Your task to perform on an android device: turn on translation in the chrome app Image 0: 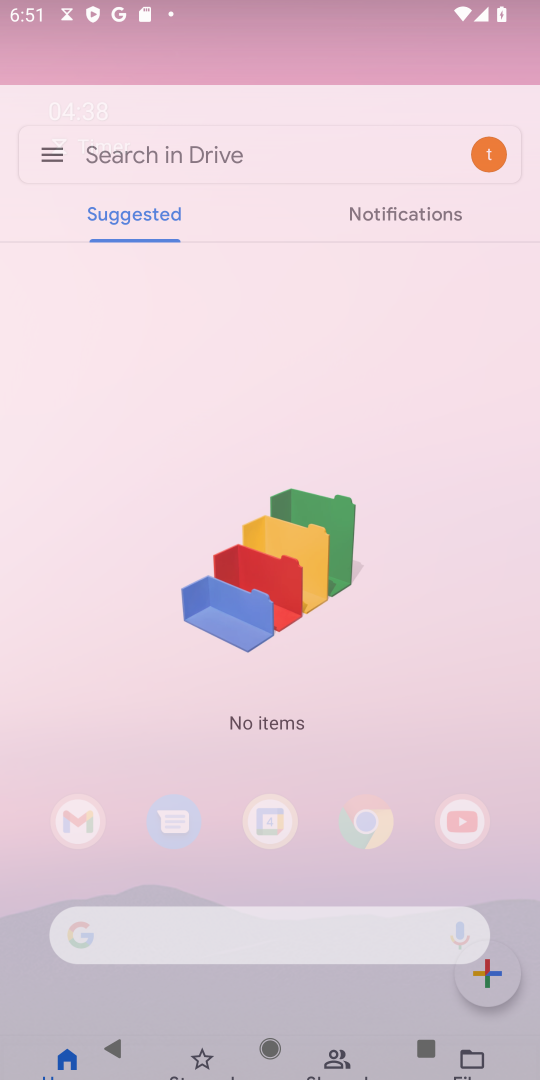
Step 0: press home button
Your task to perform on an android device: turn on translation in the chrome app Image 1: 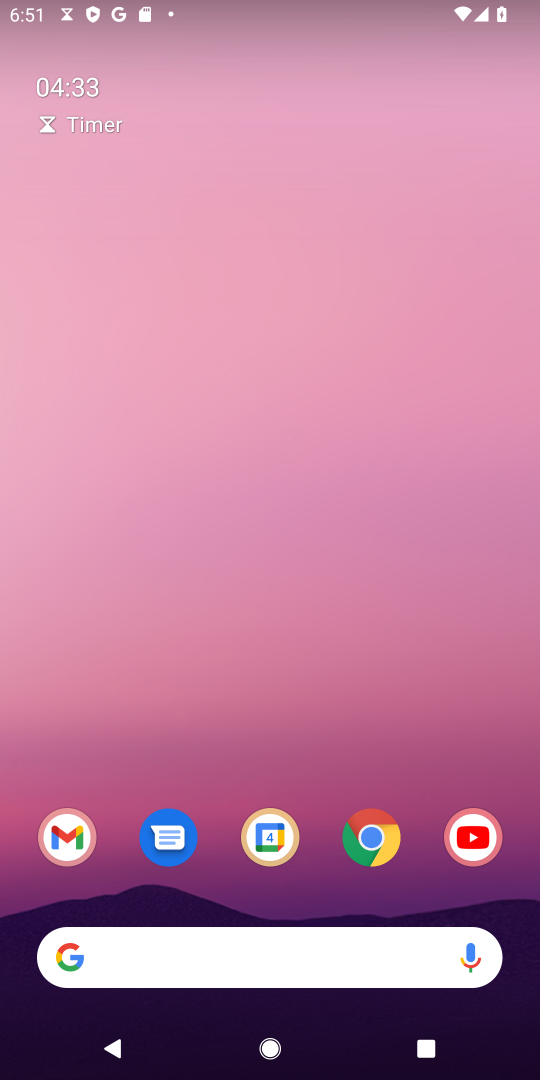
Step 1: click (364, 830)
Your task to perform on an android device: turn on translation in the chrome app Image 2: 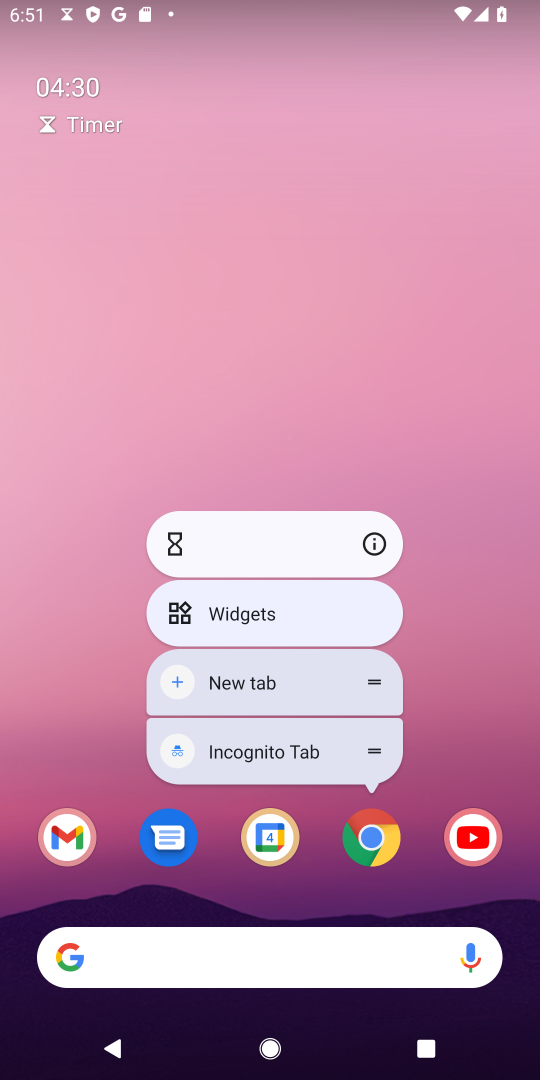
Step 2: click (478, 636)
Your task to perform on an android device: turn on translation in the chrome app Image 3: 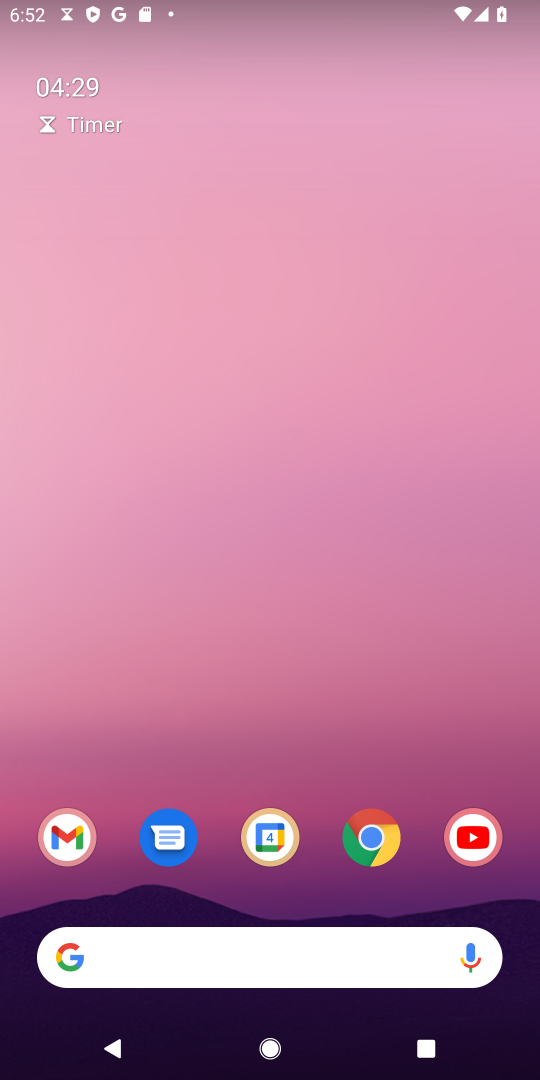
Step 3: click (373, 829)
Your task to perform on an android device: turn on translation in the chrome app Image 4: 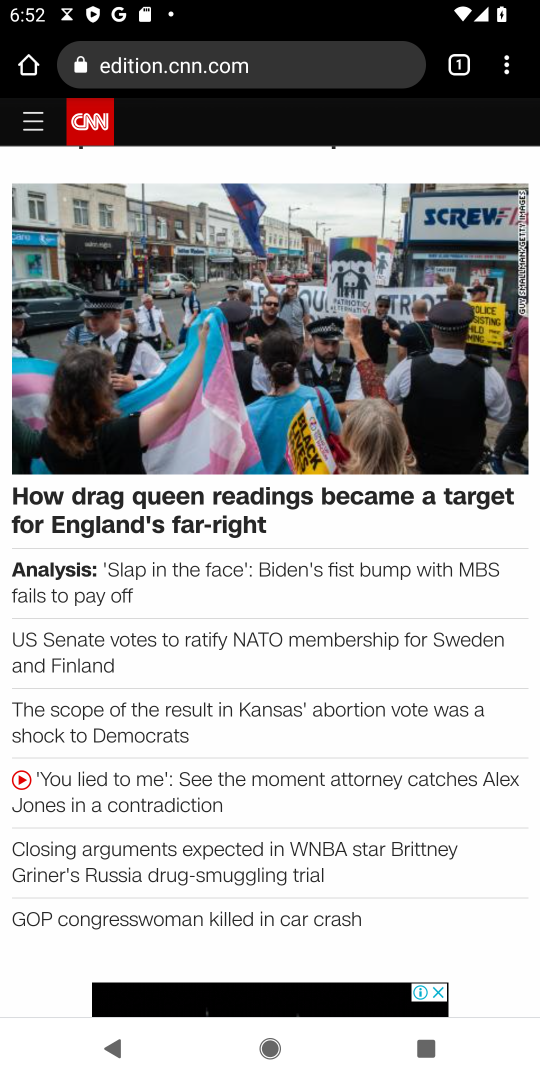
Step 4: click (501, 67)
Your task to perform on an android device: turn on translation in the chrome app Image 5: 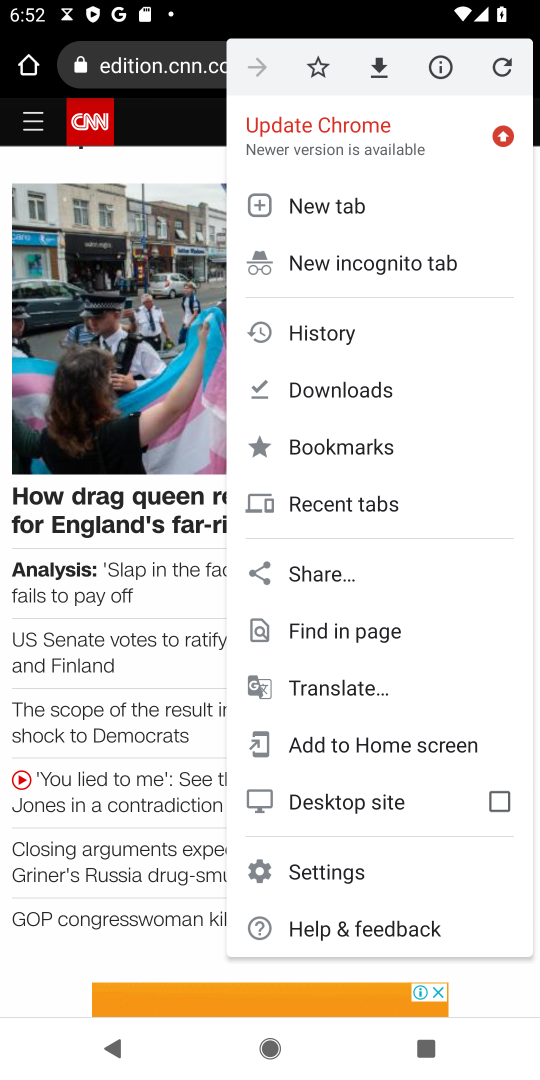
Step 5: click (341, 862)
Your task to perform on an android device: turn on translation in the chrome app Image 6: 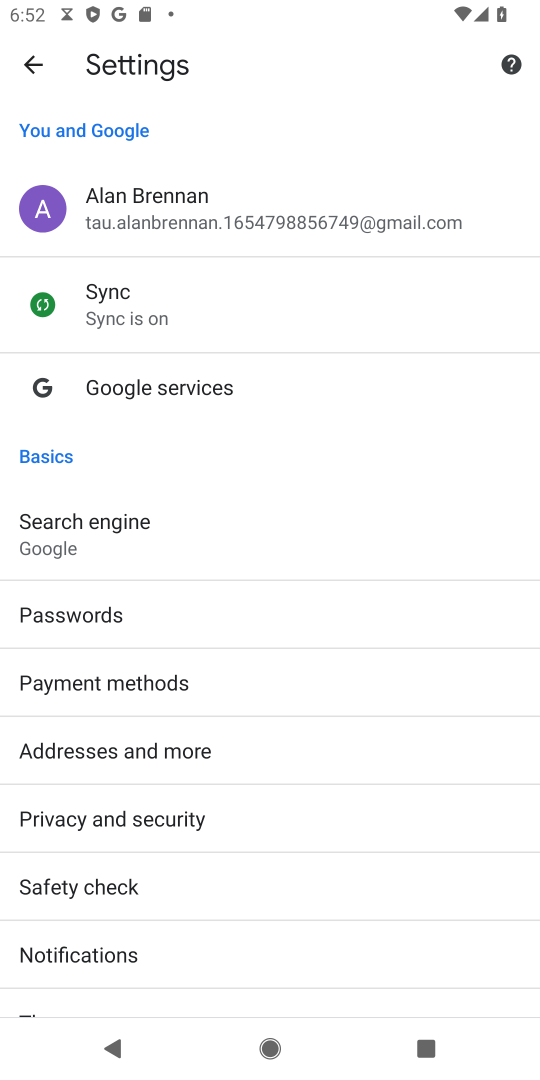
Step 6: drag from (206, 929) to (305, 215)
Your task to perform on an android device: turn on translation in the chrome app Image 7: 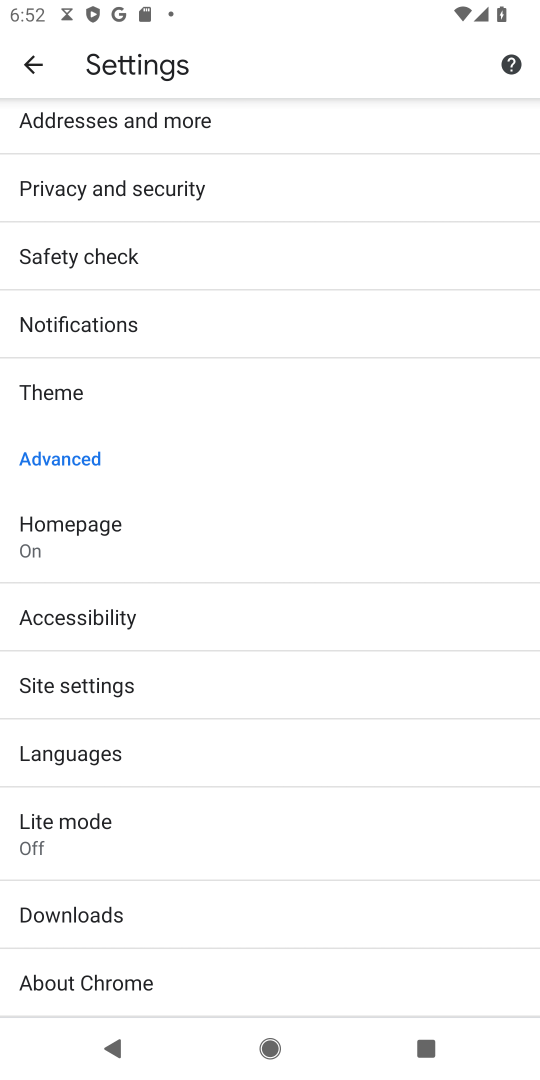
Step 7: click (141, 752)
Your task to perform on an android device: turn on translation in the chrome app Image 8: 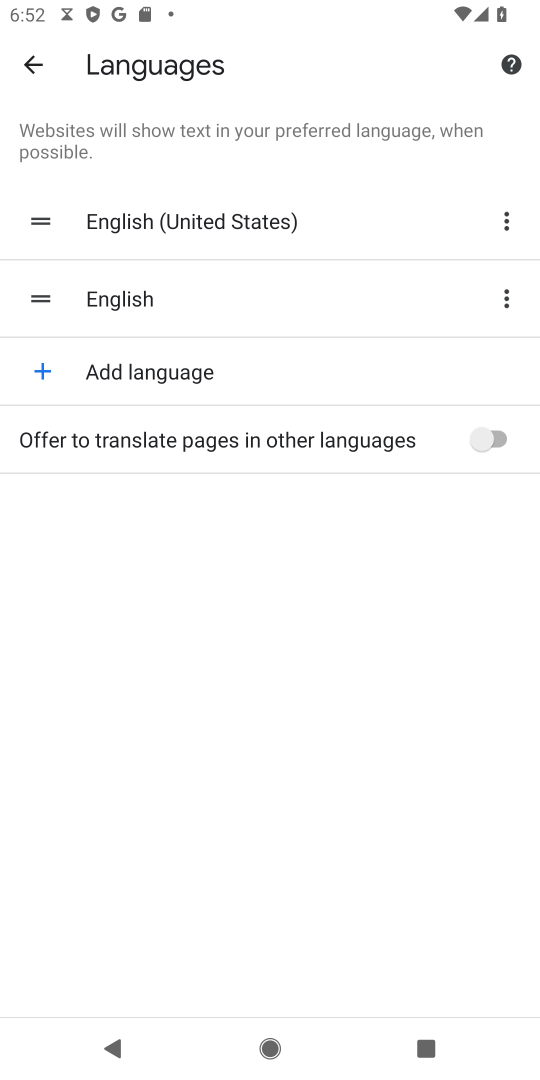
Step 8: click (485, 437)
Your task to perform on an android device: turn on translation in the chrome app Image 9: 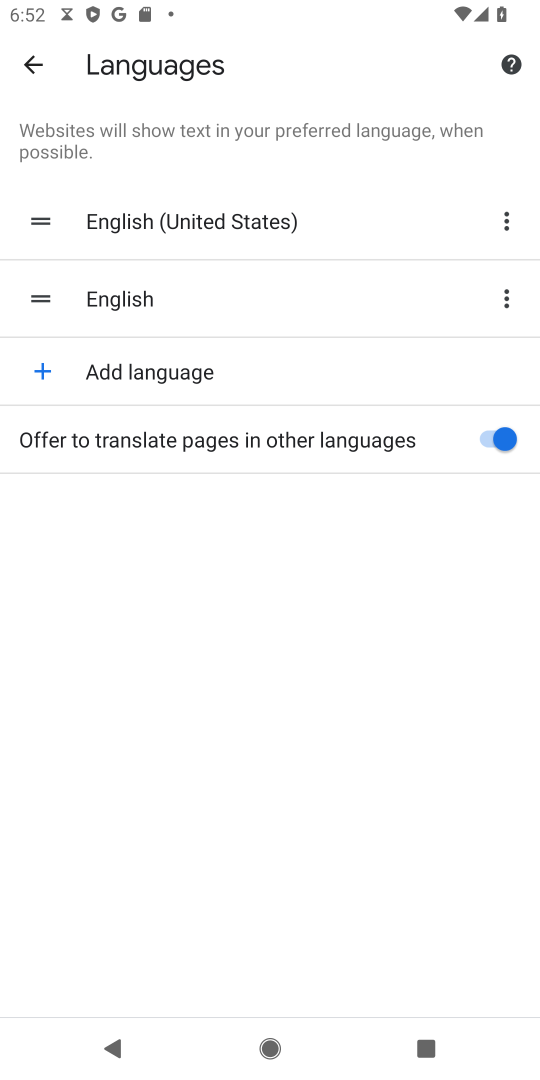
Step 9: task complete